Your task to perform on an android device: Open sound settings Image 0: 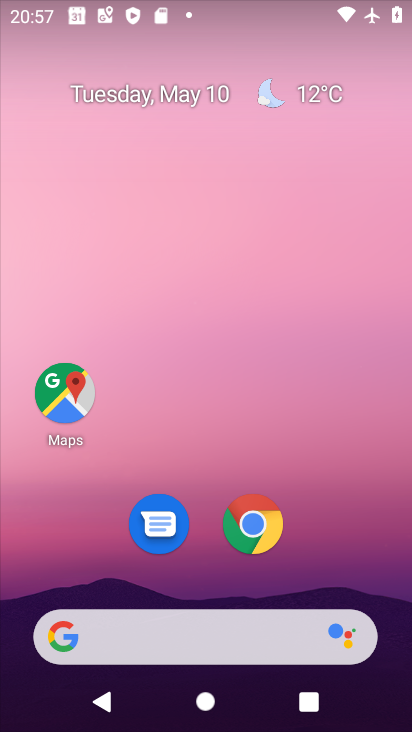
Step 0: drag from (308, 454) to (273, 32)
Your task to perform on an android device: Open sound settings Image 1: 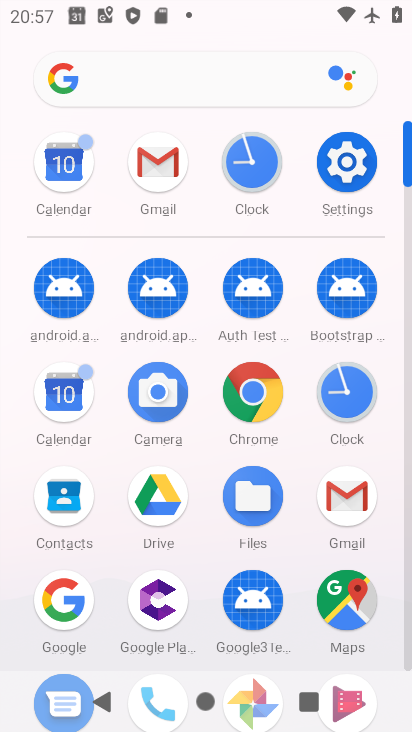
Step 1: click (336, 159)
Your task to perform on an android device: Open sound settings Image 2: 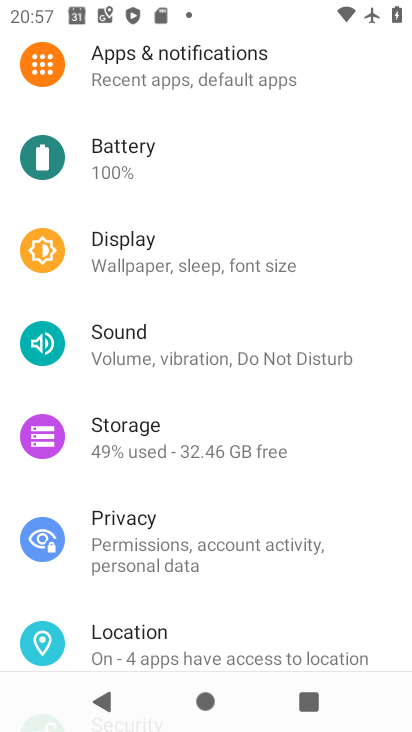
Step 2: click (195, 345)
Your task to perform on an android device: Open sound settings Image 3: 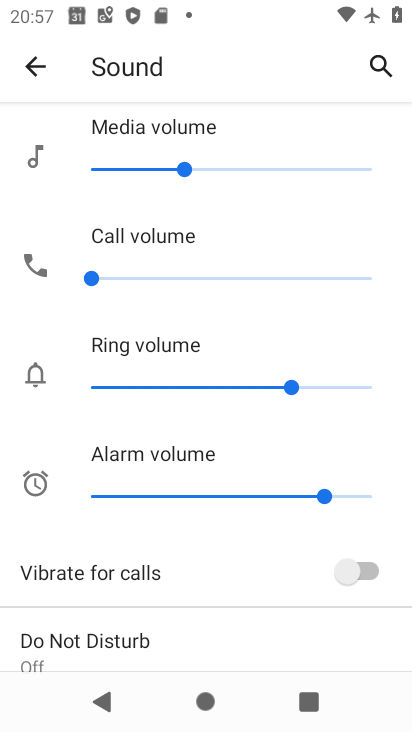
Step 3: task complete